Your task to perform on an android device: Search for the best selling books Image 0: 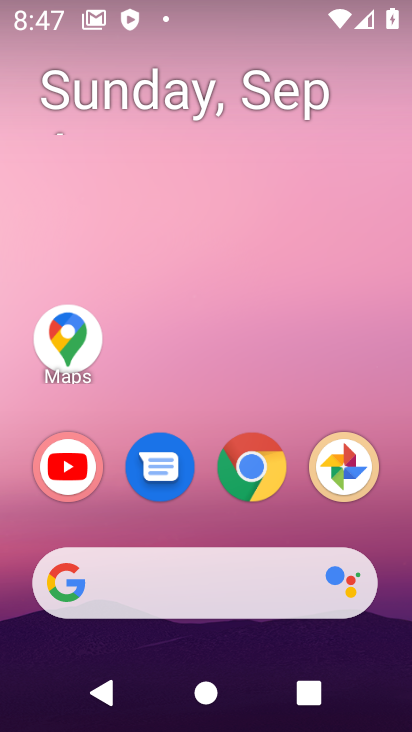
Step 0: click (256, 460)
Your task to perform on an android device: Search for the best selling books Image 1: 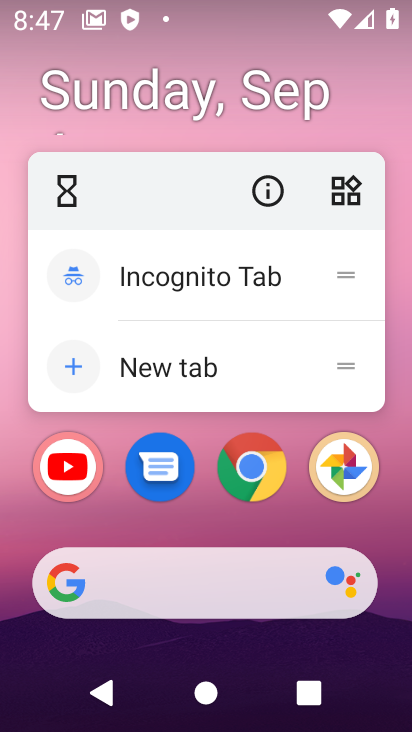
Step 1: click (237, 450)
Your task to perform on an android device: Search for the best selling books Image 2: 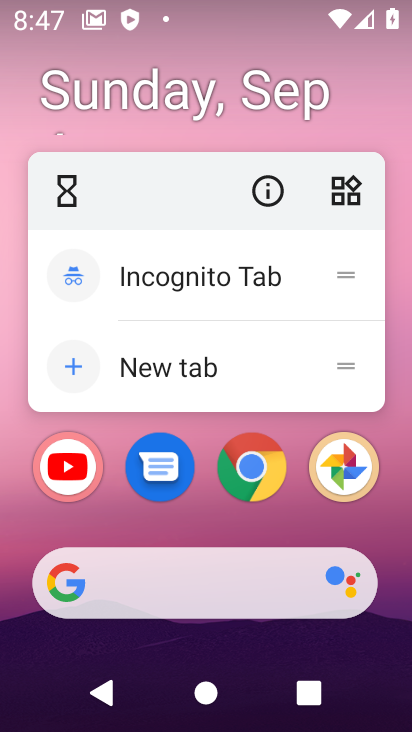
Step 2: click (252, 451)
Your task to perform on an android device: Search for the best selling books Image 3: 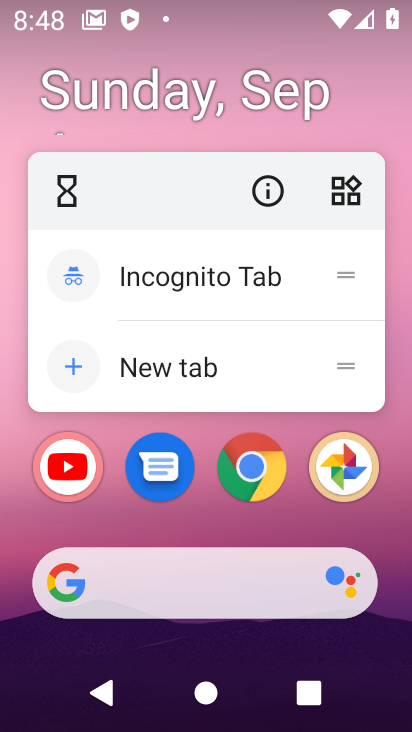
Step 3: click (256, 477)
Your task to perform on an android device: Search for the best selling books Image 4: 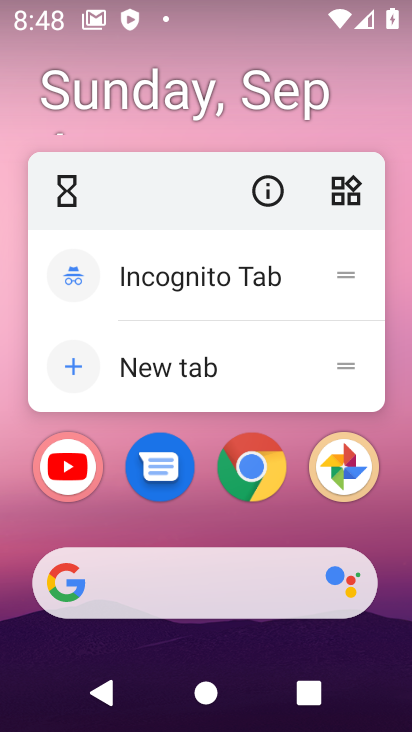
Step 4: click (254, 470)
Your task to perform on an android device: Search for the best selling books Image 5: 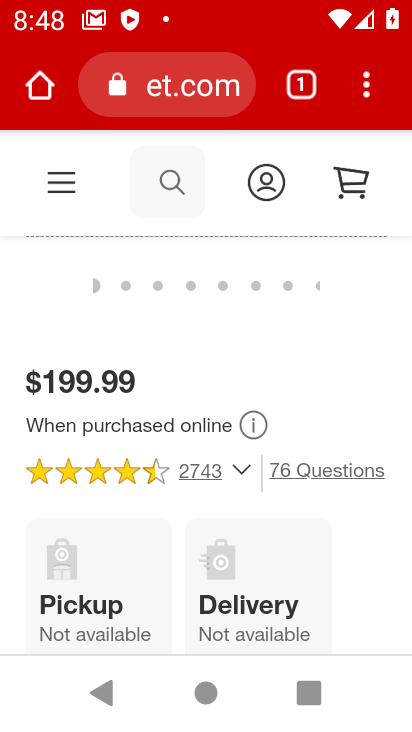
Step 5: click (184, 76)
Your task to perform on an android device: Search for the best selling books Image 6: 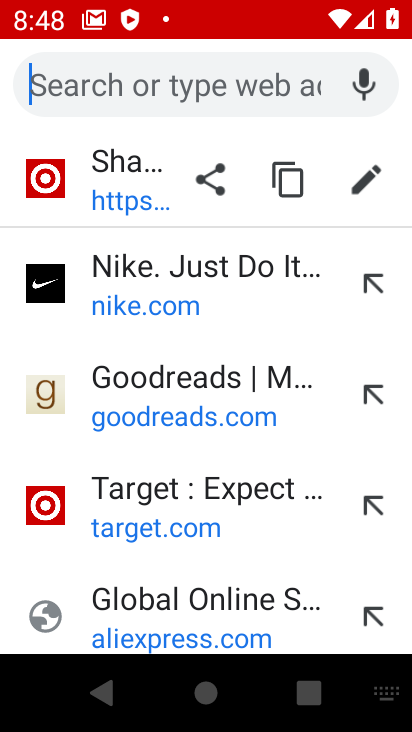
Step 6: type "best selling books"
Your task to perform on an android device: Search for the best selling books Image 7: 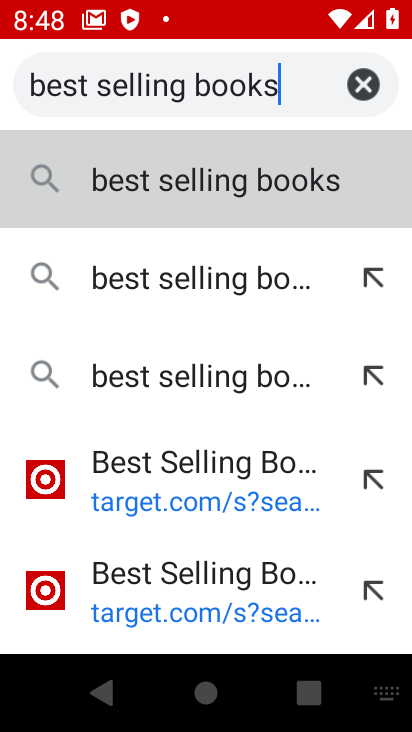
Step 7: type ""
Your task to perform on an android device: Search for the best selling books Image 8: 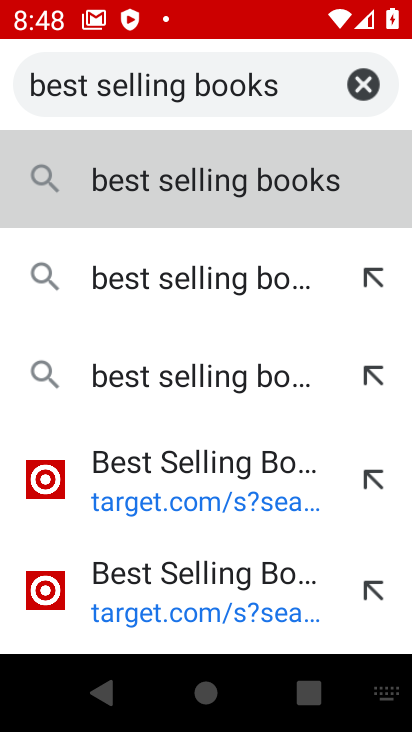
Step 8: click (221, 187)
Your task to perform on an android device: Search for the best selling books Image 9: 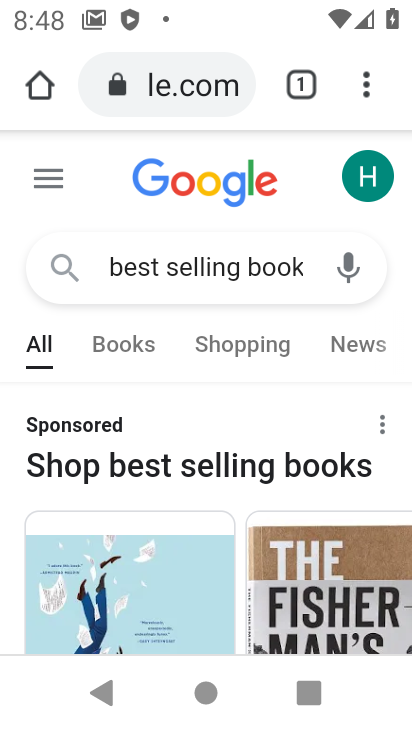
Step 9: drag from (363, 531) to (357, 235)
Your task to perform on an android device: Search for the best selling books Image 10: 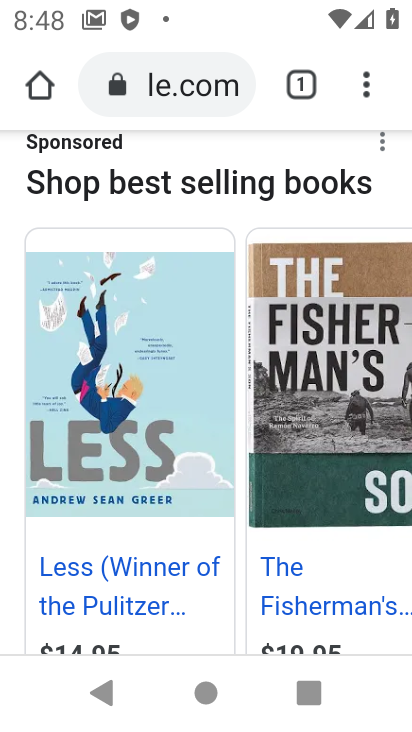
Step 10: drag from (338, 436) to (328, 180)
Your task to perform on an android device: Search for the best selling books Image 11: 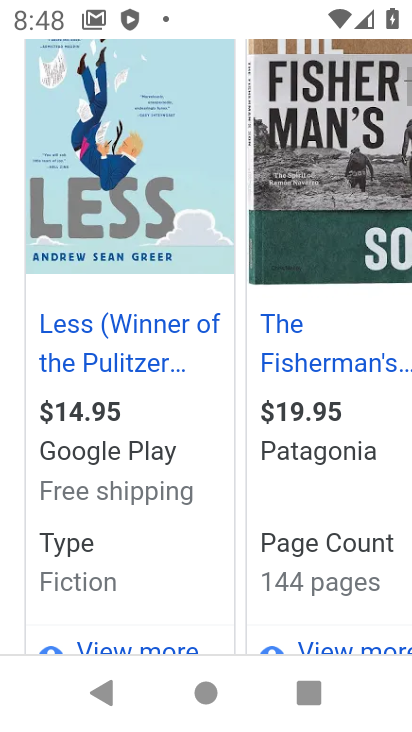
Step 11: drag from (351, 501) to (331, 91)
Your task to perform on an android device: Search for the best selling books Image 12: 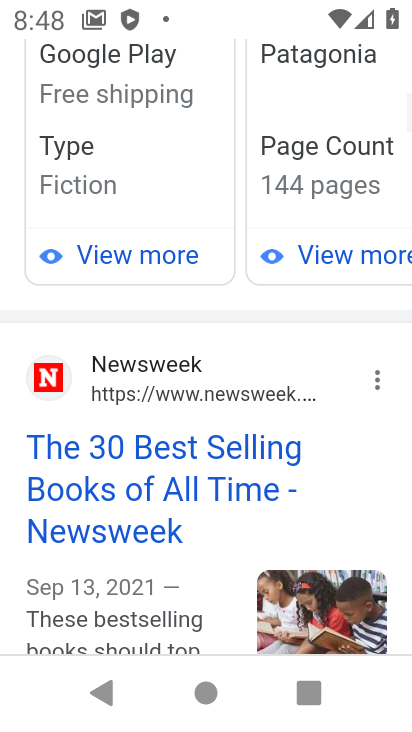
Step 12: drag from (276, 488) to (312, 140)
Your task to perform on an android device: Search for the best selling books Image 13: 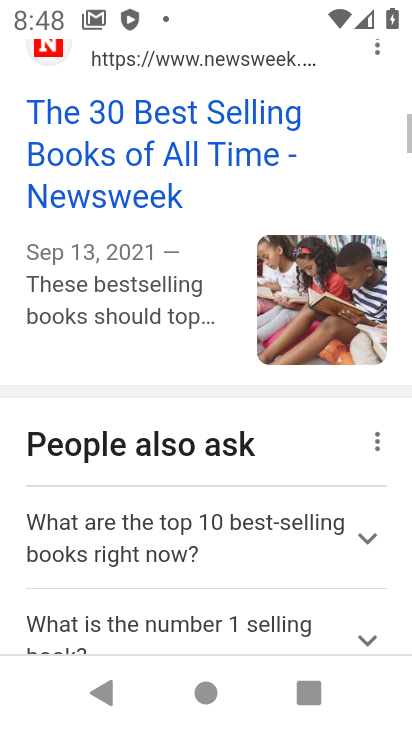
Step 13: drag from (305, 553) to (284, 41)
Your task to perform on an android device: Search for the best selling books Image 14: 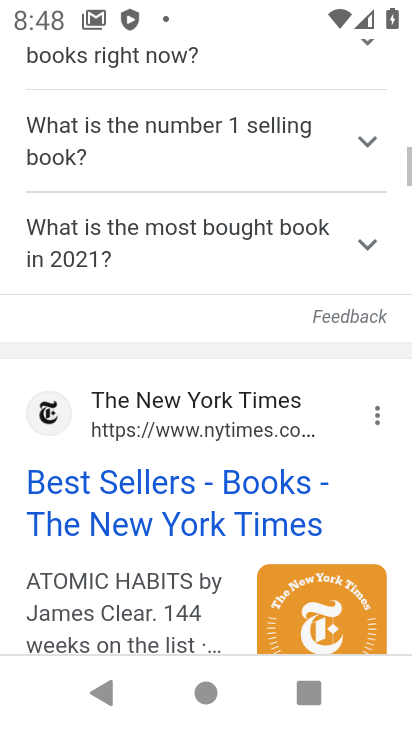
Step 14: drag from (218, 535) to (234, 273)
Your task to perform on an android device: Search for the best selling books Image 15: 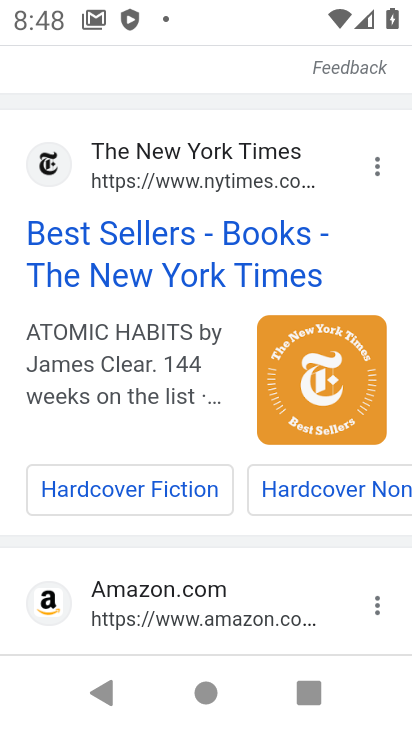
Step 15: click (176, 239)
Your task to perform on an android device: Search for the best selling books Image 16: 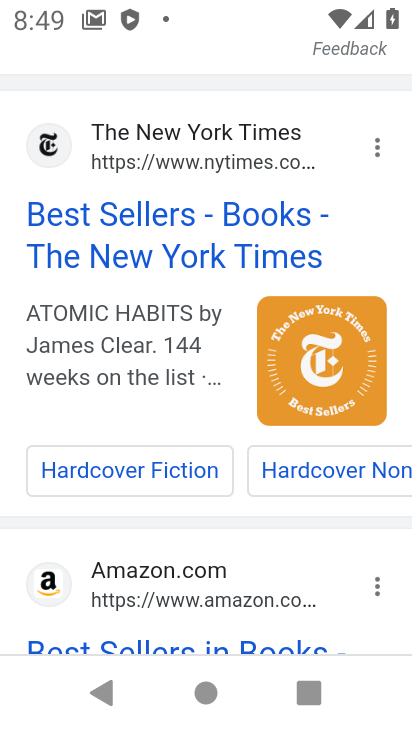
Step 16: click (118, 210)
Your task to perform on an android device: Search for the best selling books Image 17: 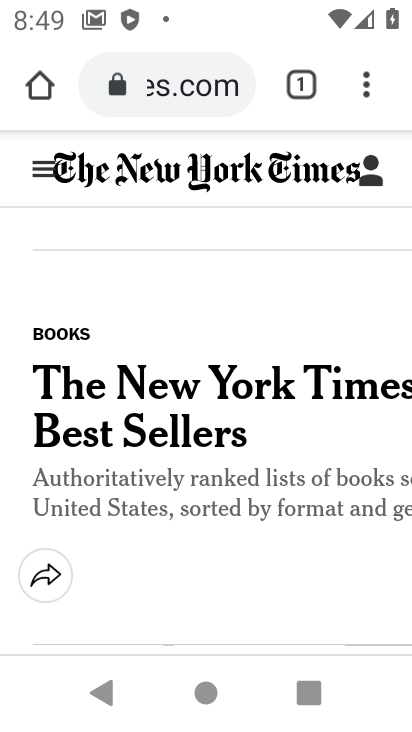
Step 17: drag from (263, 526) to (257, 240)
Your task to perform on an android device: Search for the best selling books Image 18: 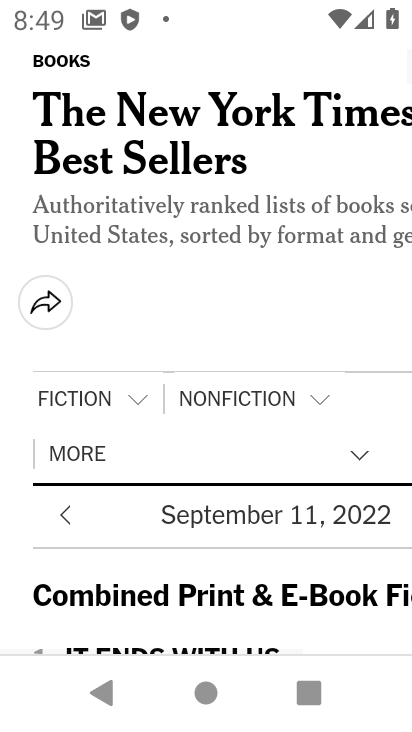
Step 18: drag from (309, 387) to (287, 236)
Your task to perform on an android device: Search for the best selling books Image 19: 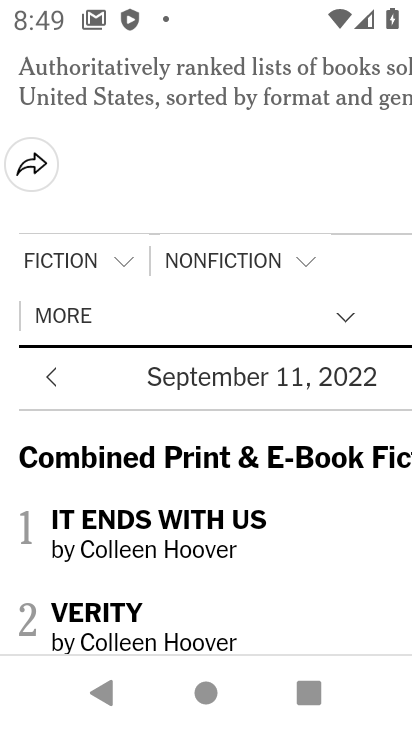
Step 19: drag from (305, 525) to (302, 182)
Your task to perform on an android device: Search for the best selling books Image 20: 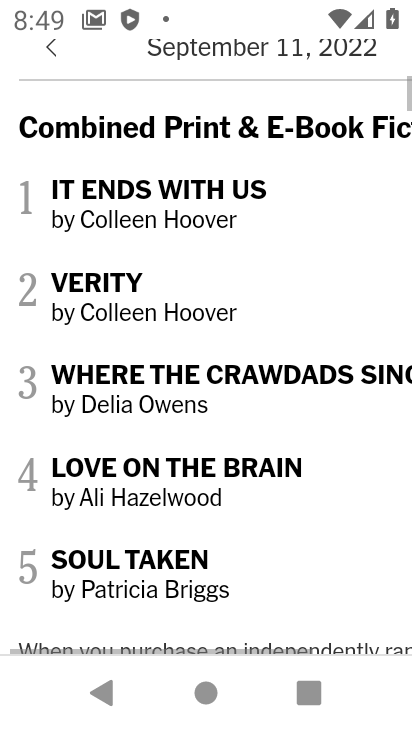
Step 20: drag from (377, 543) to (307, 137)
Your task to perform on an android device: Search for the best selling books Image 21: 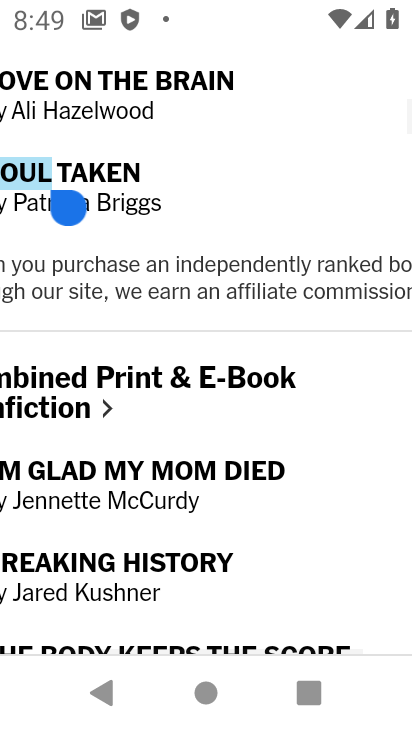
Step 21: drag from (342, 493) to (352, 207)
Your task to perform on an android device: Search for the best selling books Image 22: 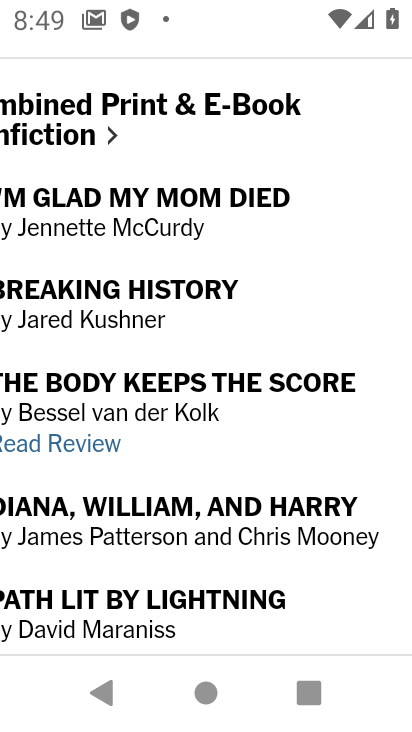
Step 22: press back button
Your task to perform on an android device: Search for the best selling books Image 23: 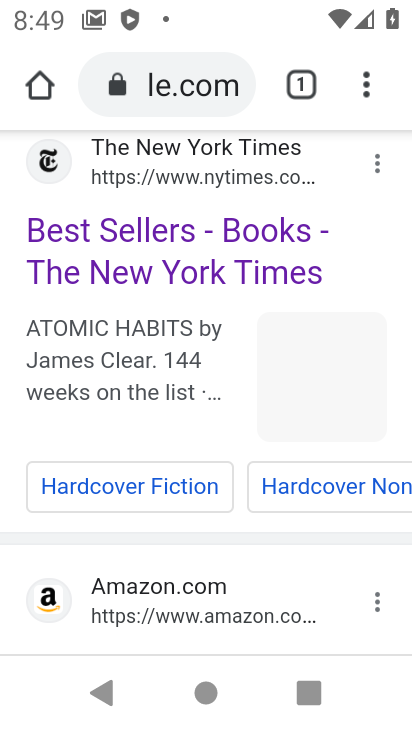
Step 23: drag from (350, 383) to (356, 171)
Your task to perform on an android device: Search for the best selling books Image 24: 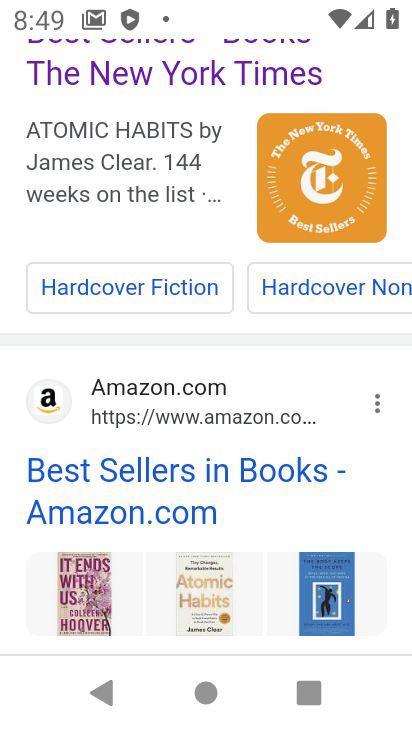
Step 24: drag from (367, 440) to (323, 217)
Your task to perform on an android device: Search for the best selling books Image 25: 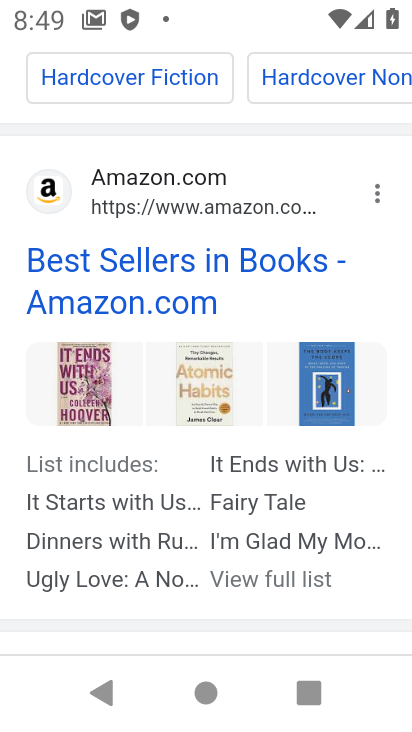
Step 25: click (90, 257)
Your task to perform on an android device: Search for the best selling books Image 26: 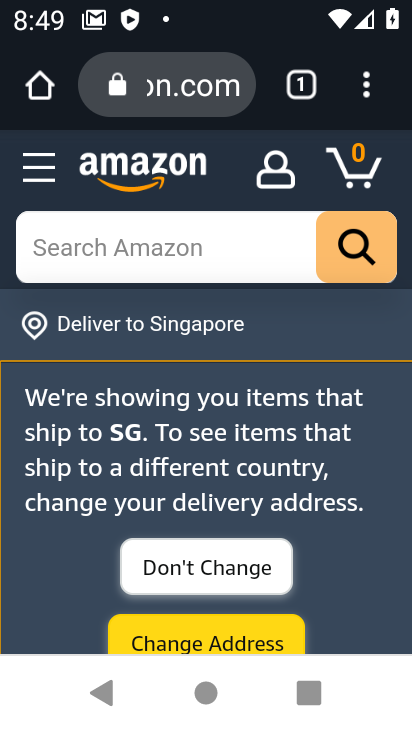
Step 26: drag from (383, 484) to (351, 217)
Your task to perform on an android device: Search for the best selling books Image 27: 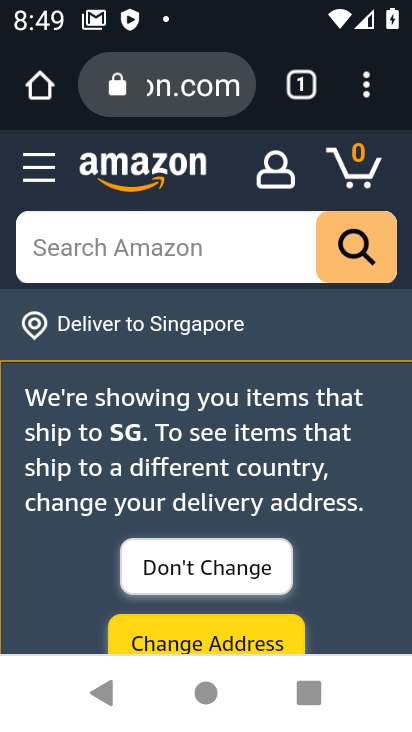
Step 27: click (135, 239)
Your task to perform on an android device: Search for the best selling books Image 28: 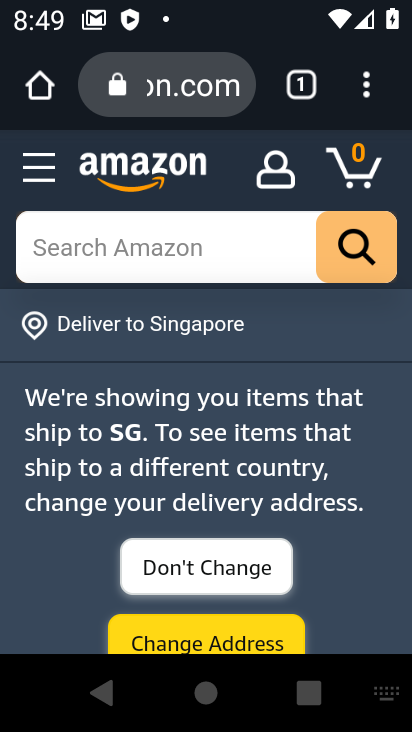
Step 28: type "best selling books"
Your task to perform on an android device: Search for the best selling books Image 29: 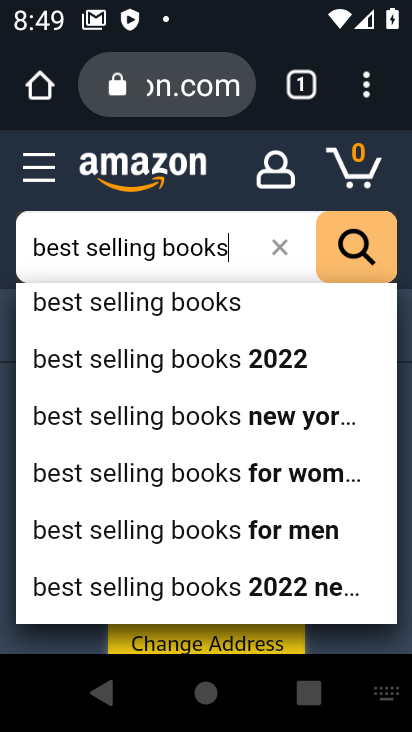
Step 29: click (137, 307)
Your task to perform on an android device: Search for the best selling books Image 30: 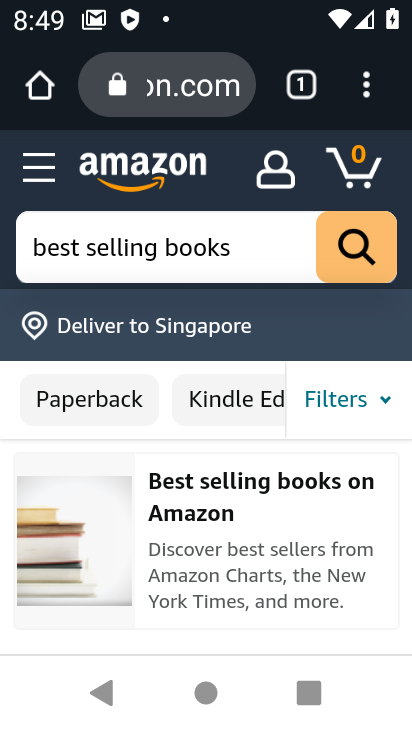
Step 30: task complete